Your task to perform on an android device: Open Google Chrome and click the shortcut for Amazon.com Image 0: 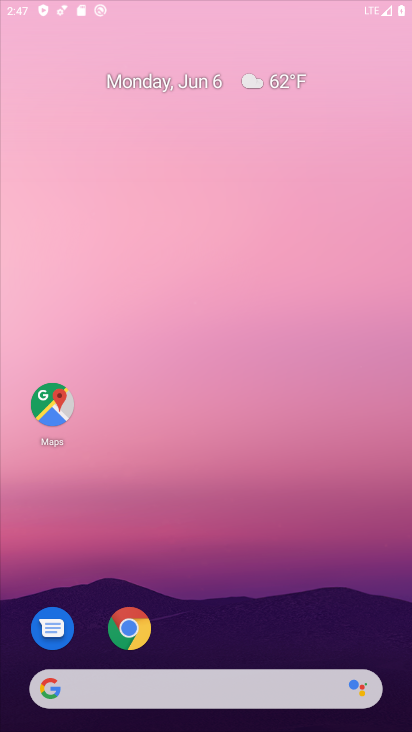
Step 0: press home button
Your task to perform on an android device: Open Google Chrome and click the shortcut for Amazon.com Image 1: 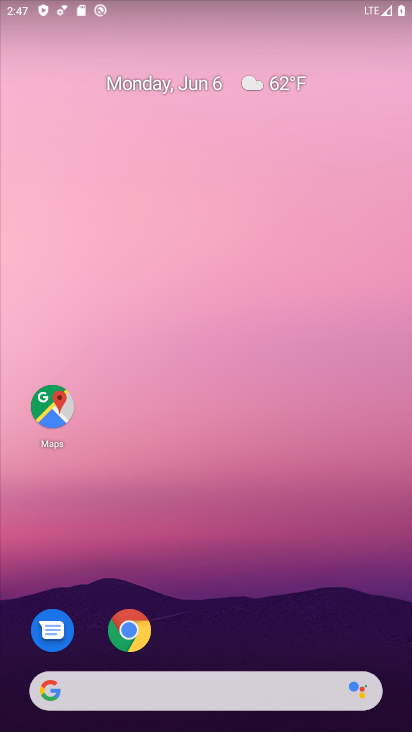
Step 1: click (107, 637)
Your task to perform on an android device: Open Google Chrome and click the shortcut for Amazon.com Image 2: 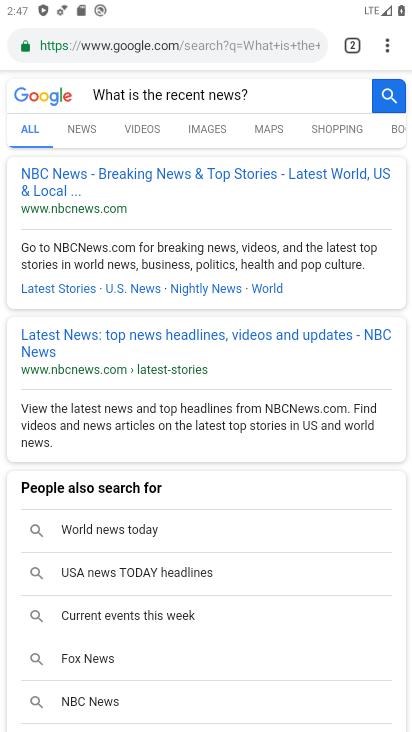
Step 2: drag from (386, 46) to (265, 103)
Your task to perform on an android device: Open Google Chrome and click the shortcut for Amazon.com Image 3: 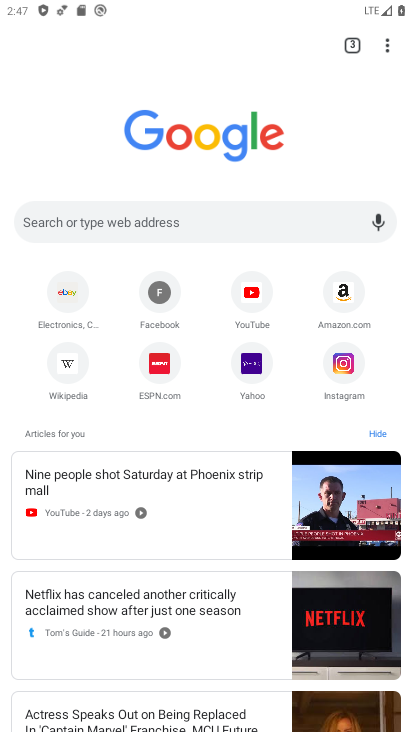
Step 3: click (353, 299)
Your task to perform on an android device: Open Google Chrome and click the shortcut for Amazon.com Image 4: 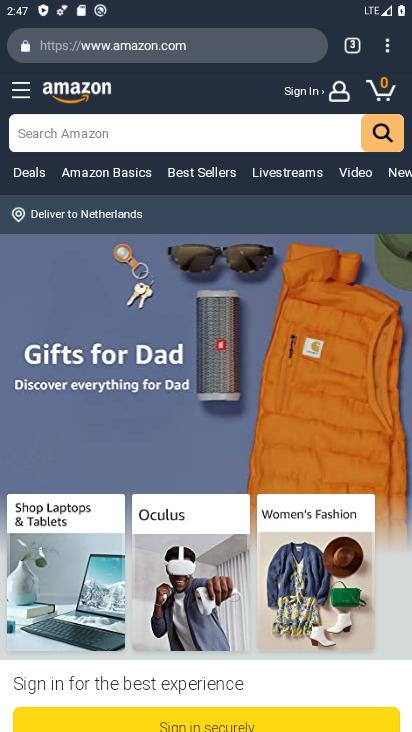
Step 4: task complete